Your task to perform on an android device: Go to privacy settings Image 0: 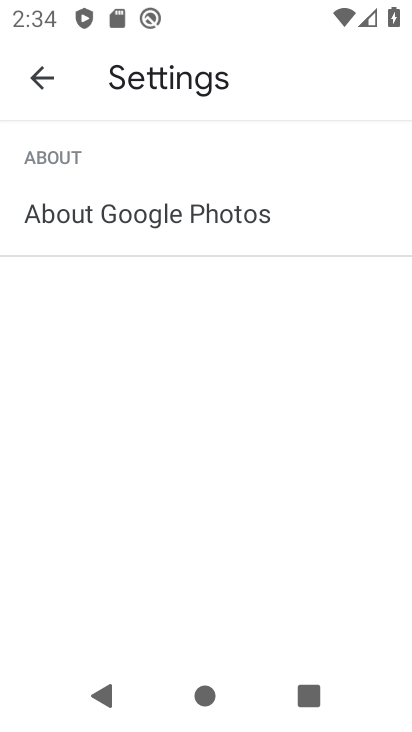
Step 0: press home button
Your task to perform on an android device: Go to privacy settings Image 1: 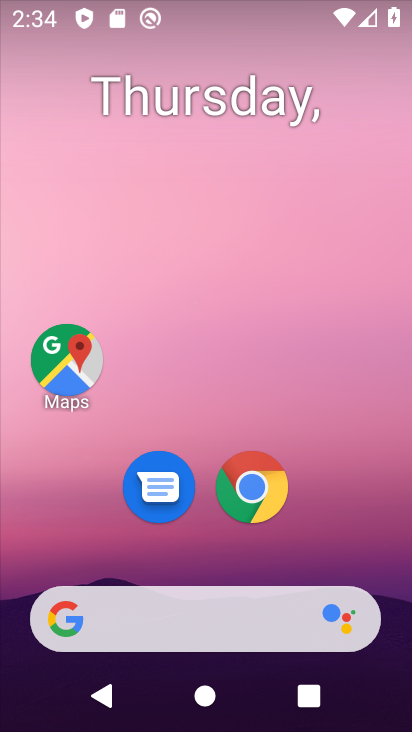
Step 1: drag from (337, 487) to (338, 29)
Your task to perform on an android device: Go to privacy settings Image 2: 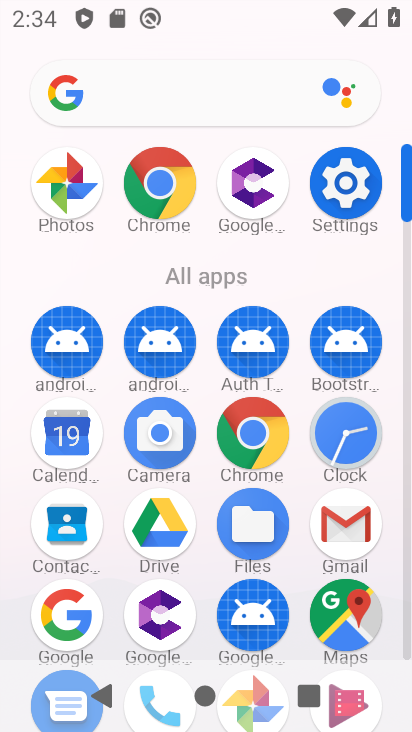
Step 2: click (340, 212)
Your task to perform on an android device: Go to privacy settings Image 3: 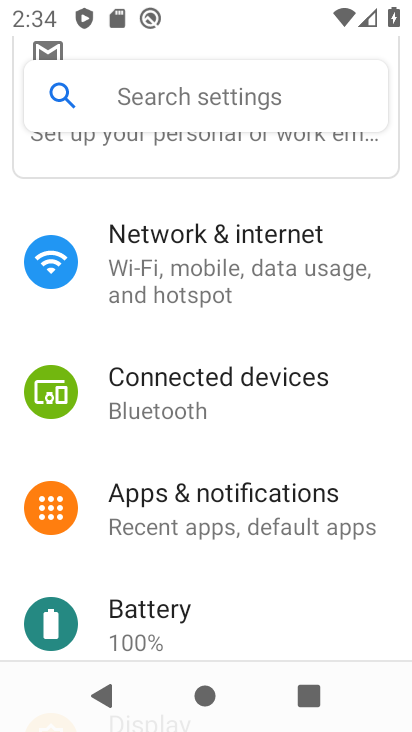
Step 3: drag from (232, 609) to (243, 107)
Your task to perform on an android device: Go to privacy settings Image 4: 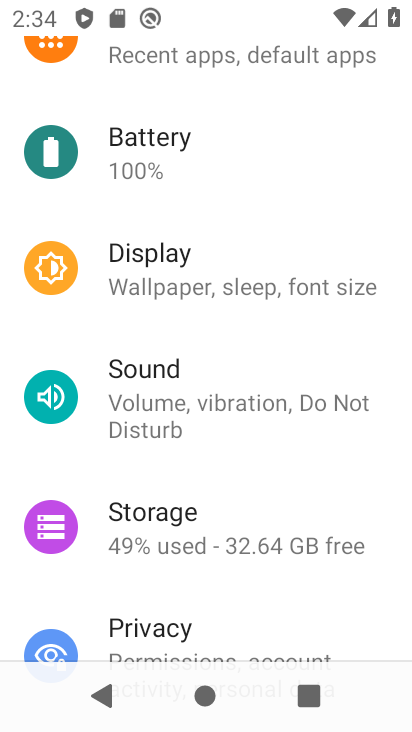
Step 4: drag from (225, 428) to (256, 229)
Your task to perform on an android device: Go to privacy settings Image 5: 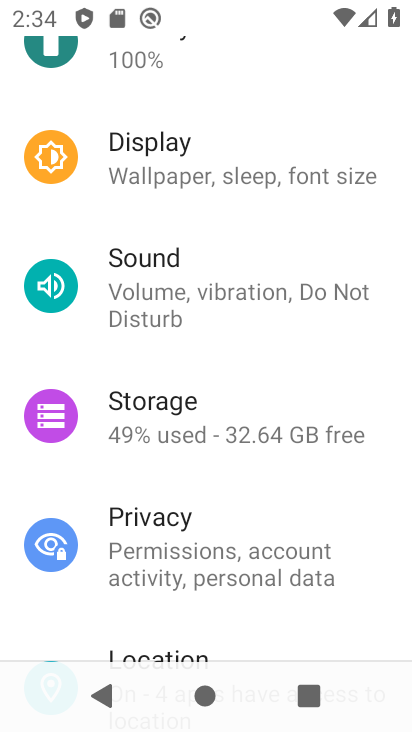
Step 5: click (171, 535)
Your task to perform on an android device: Go to privacy settings Image 6: 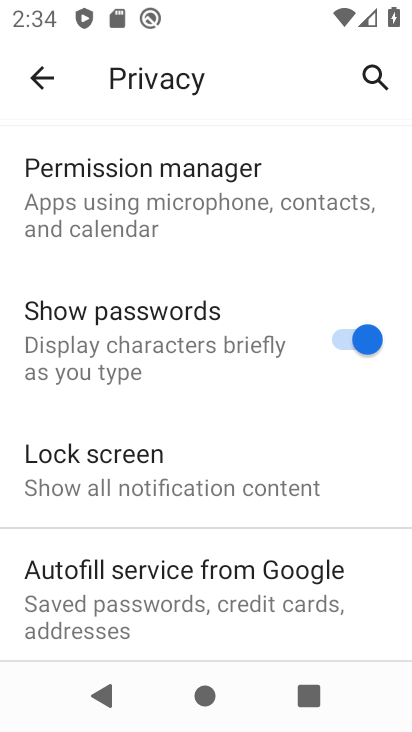
Step 6: task complete